Your task to perform on an android device: delete location history Image 0: 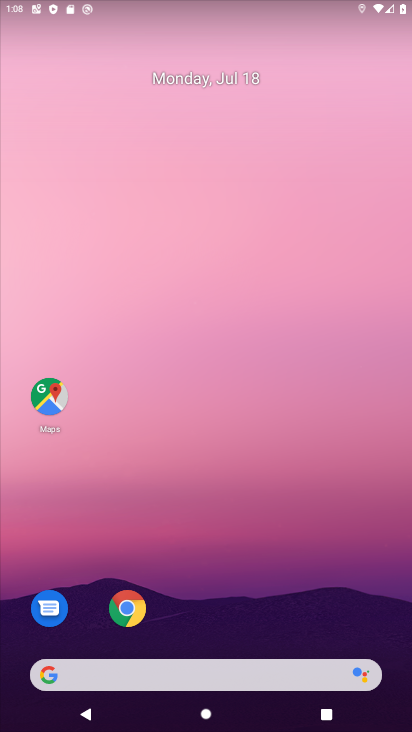
Step 0: drag from (366, 615) to (280, 80)
Your task to perform on an android device: delete location history Image 1: 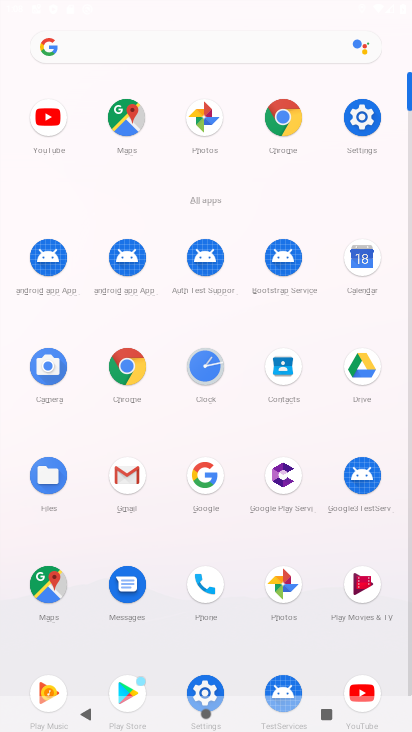
Step 1: click (125, 127)
Your task to perform on an android device: delete location history Image 2: 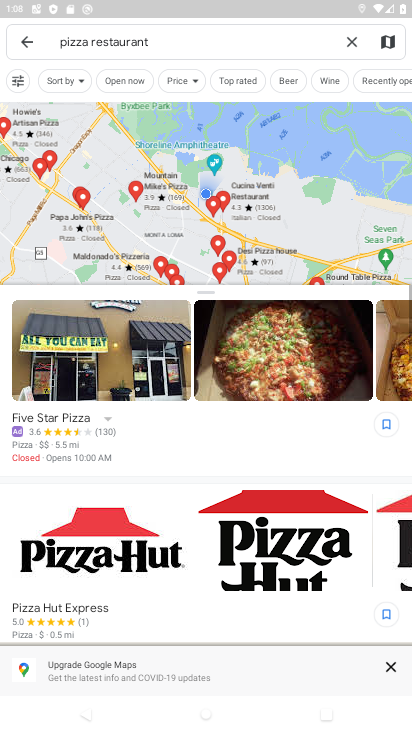
Step 2: click (26, 44)
Your task to perform on an android device: delete location history Image 3: 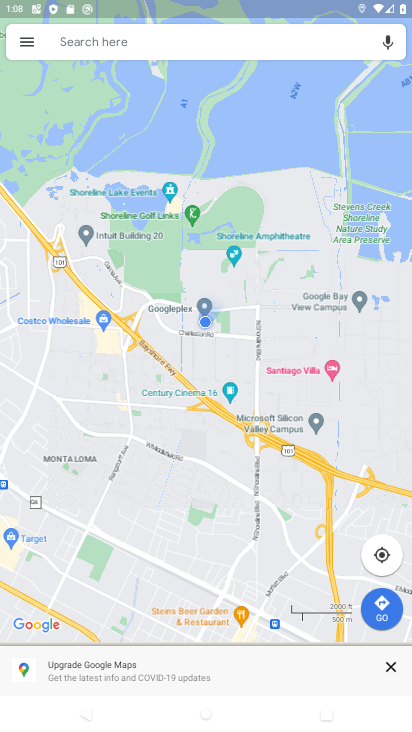
Step 3: click (32, 47)
Your task to perform on an android device: delete location history Image 4: 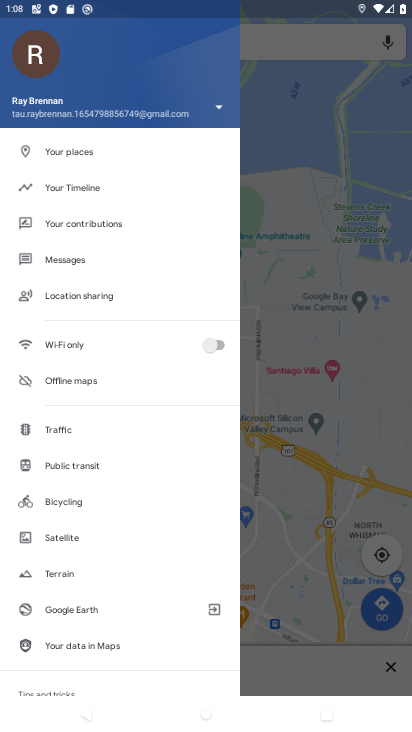
Step 4: click (86, 191)
Your task to perform on an android device: delete location history Image 5: 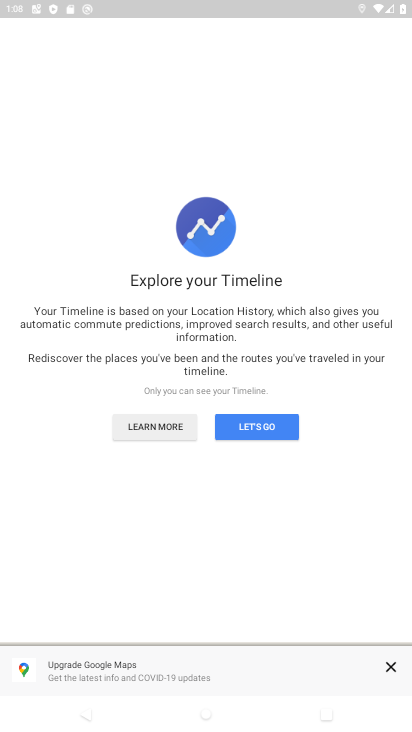
Step 5: click (239, 421)
Your task to perform on an android device: delete location history Image 6: 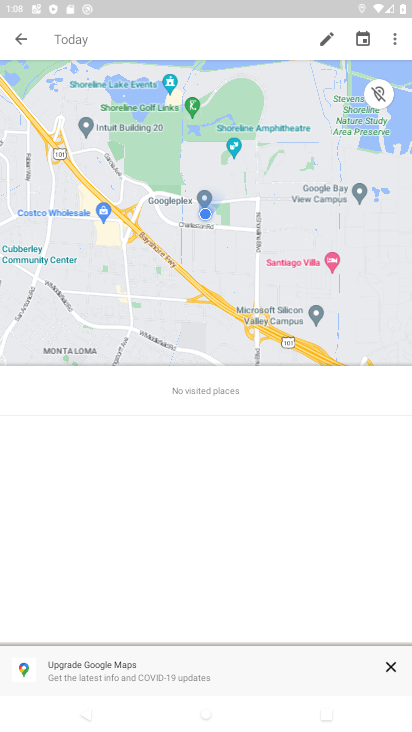
Step 6: click (395, 37)
Your task to perform on an android device: delete location history Image 7: 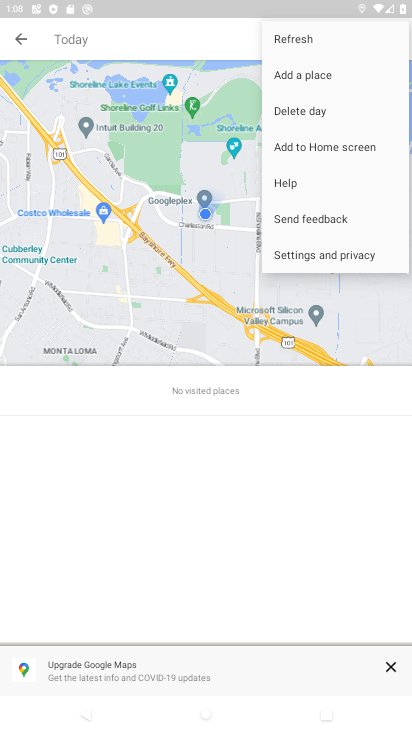
Step 7: click (329, 257)
Your task to perform on an android device: delete location history Image 8: 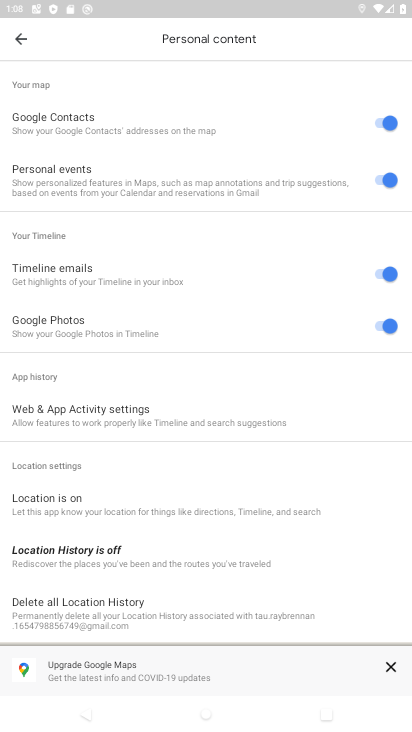
Step 8: click (175, 601)
Your task to perform on an android device: delete location history Image 9: 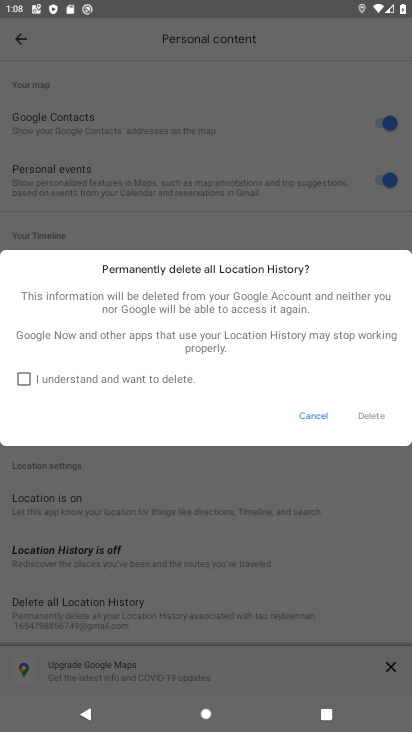
Step 9: click (176, 380)
Your task to perform on an android device: delete location history Image 10: 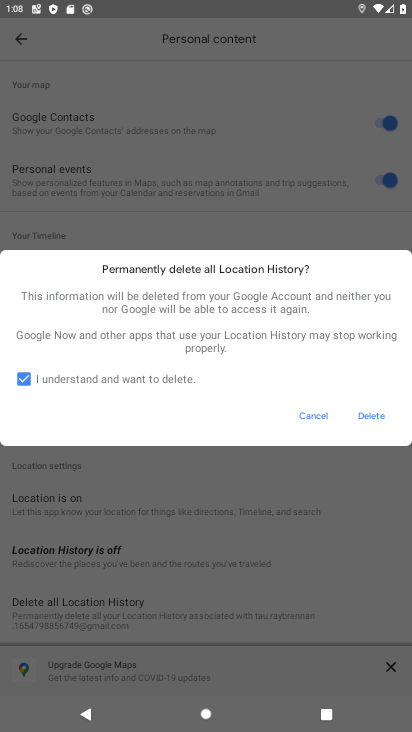
Step 10: click (377, 424)
Your task to perform on an android device: delete location history Image 11: 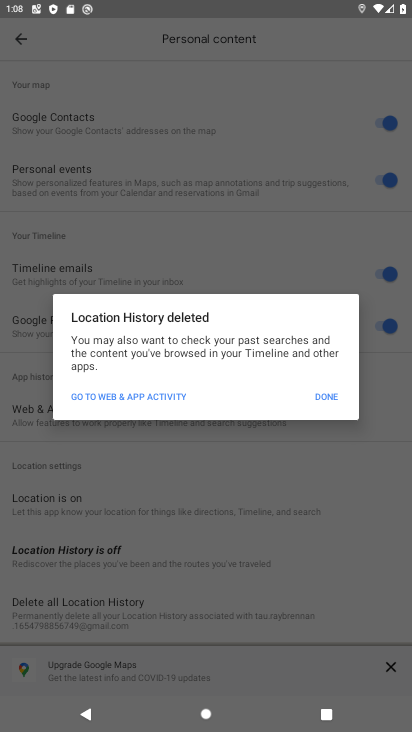
Step 11: click (335, 395)
Your task to perform on an android device: delete location history Image 12: 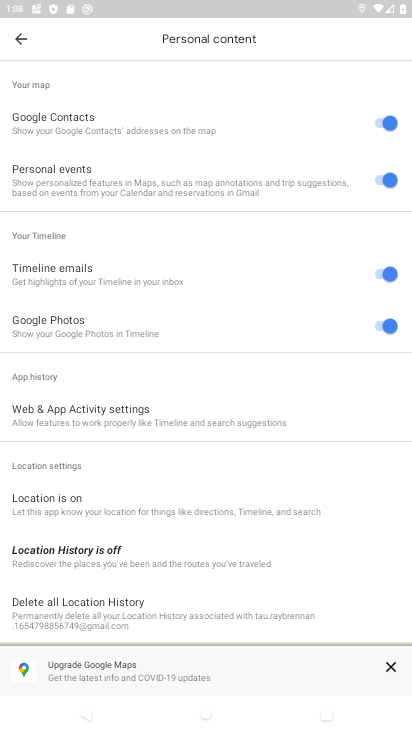
Step 12: task complete